Your task to perform on an android device: open a new tab in the chrome app Image 0: 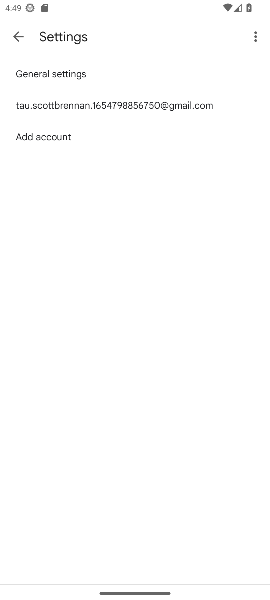
Step 0: press home button
Your task to perform on an android device: open a new tab in the chrome app Image 1: 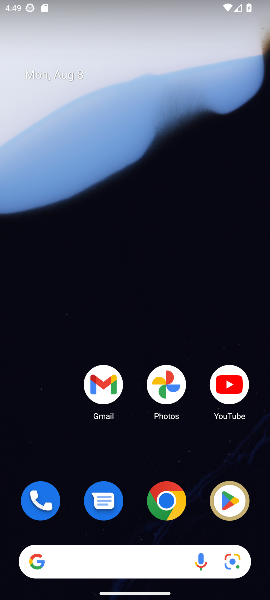
Step 1: click (163, 504)
Your task to perform on an android device: open a new tab in the chrome app Image 2: 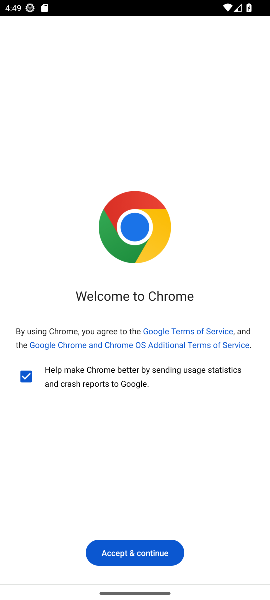
Step 2: click (125, 555)
Your task to perform on an android device: open a new tab in the chrome app Image 3: 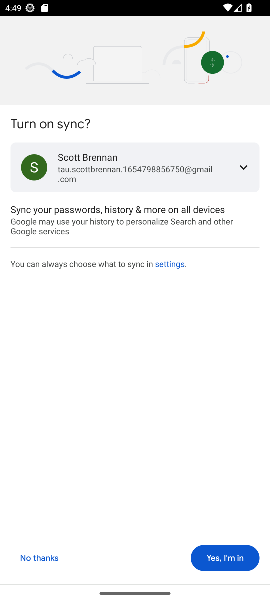
Step 3: click (28, 559)
Your task to perform on an android device: open a new tab in the chrome app Image 4: 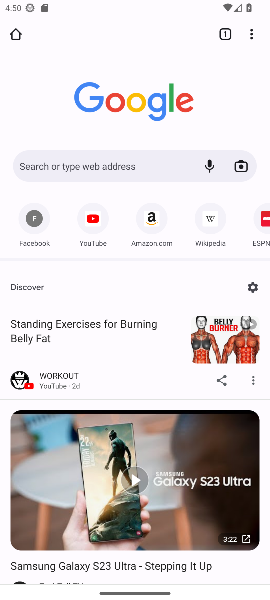
Step 4: click (254, 37)
Your task to perform on an android device: open a new tab in the chrome app Image 5: 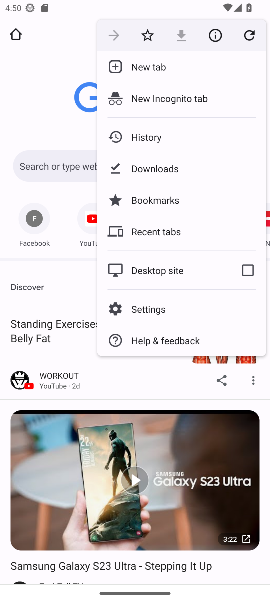
Step 5: click (144, 68)
Your task to perform on an android device: open a new tab in the chrome app Image 6: 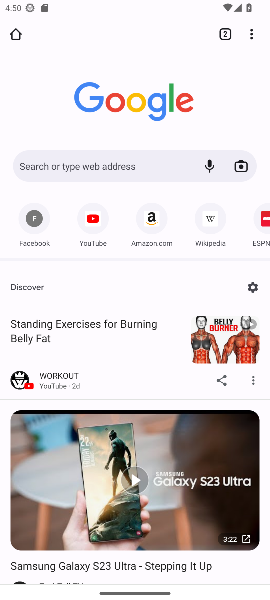
Step 6: task complete